Your task to perform on an android device: Search for Mexican restaurants on Maps Image 0: 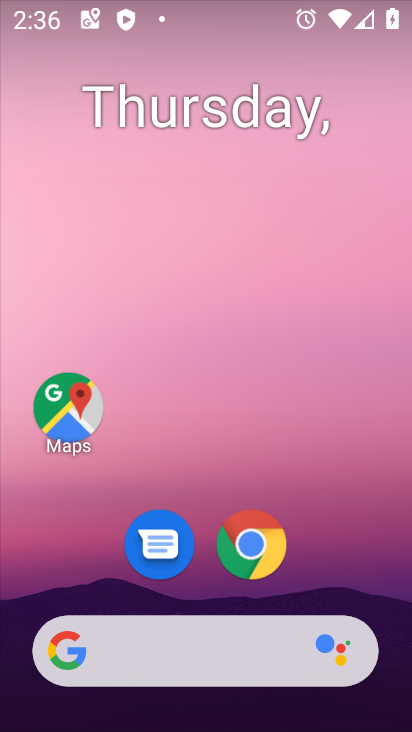
Step 0: click (53, 405)
Your task to perform on an android device: Search for Mexican restaurants on Maps Image 1: 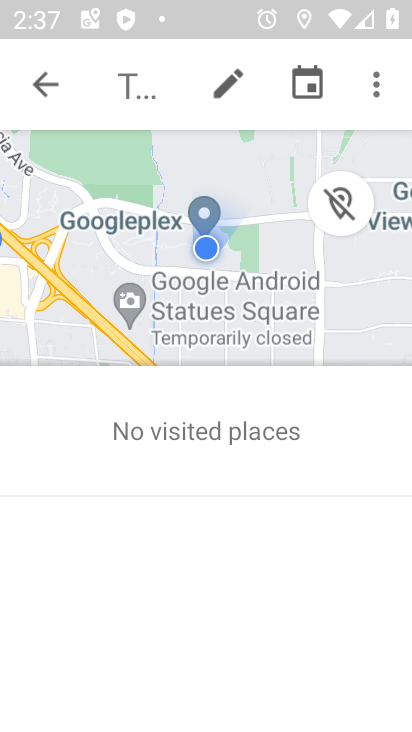
Step 1: click (32, 98)
Your task to perform on an android device: Search for Mexican restaurants on Maps Image 2: 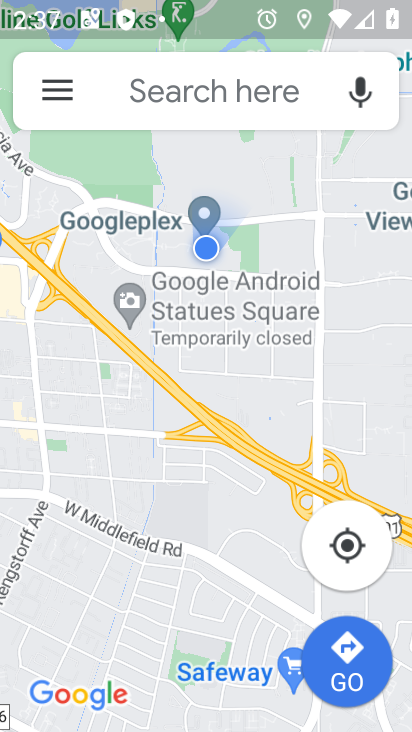
Step 2: click (170, 102)
Your task to perform on an android device: Search for Mexican restaurants on Maps Image 3: 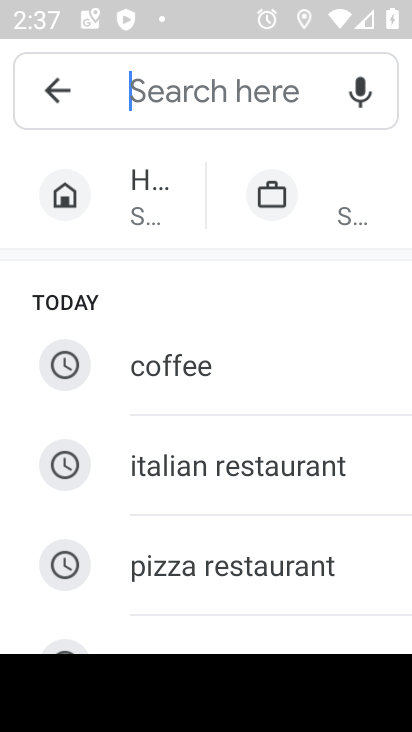
Step 3: drag from (192, 443) to (185, 184)
Your task to perform on an android device: Search for Mexican restaurants on Maps Image 4: 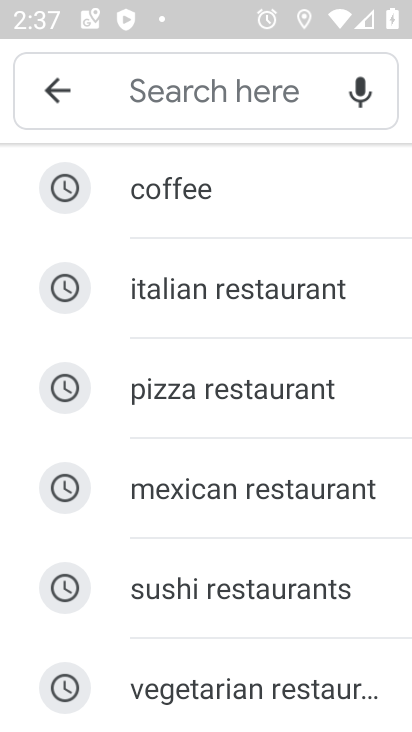
Step 4: click (275, 498)
Your task to perform on an android device: Search for Mexican restaurants on Maps Image 5: 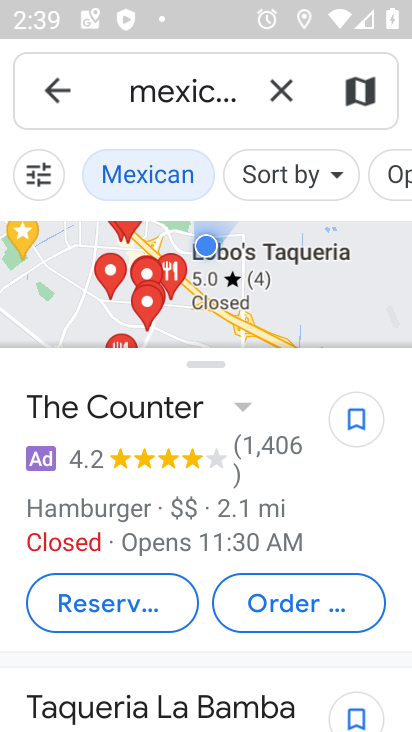
Step 5: task complete